Your task to perform on an android device: Open Youtube and go to "Your channel" Image 0: 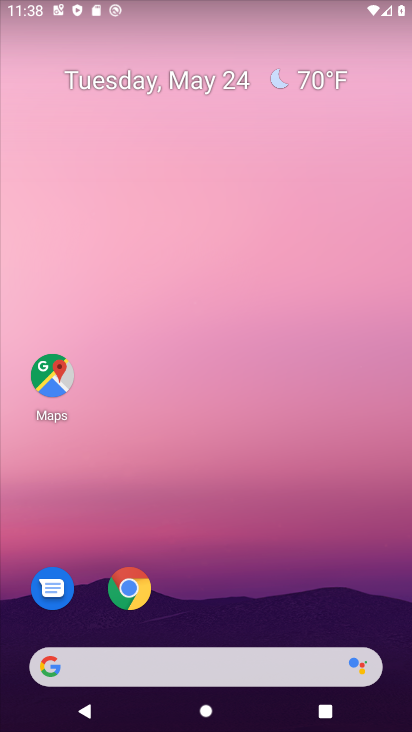
Step 0: press home button
Your task to perform on an android device: Open Youtube and go to "Your channel" Image 1: 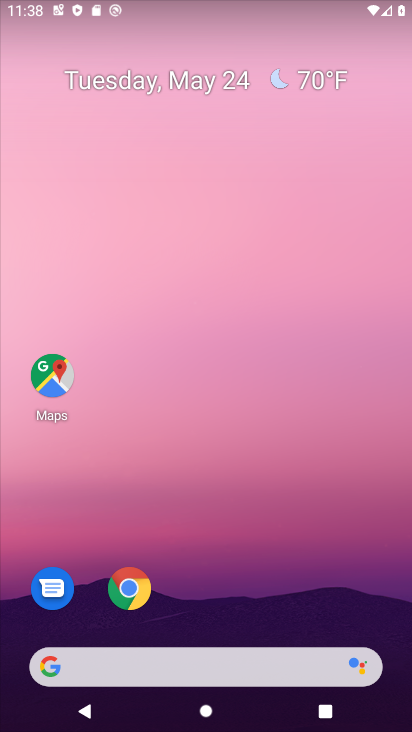
Step 1: drag from (201, 622) to (183, 0)
Your task to perform on an android device: Open Youtube and go to "Your channel" Image 2: 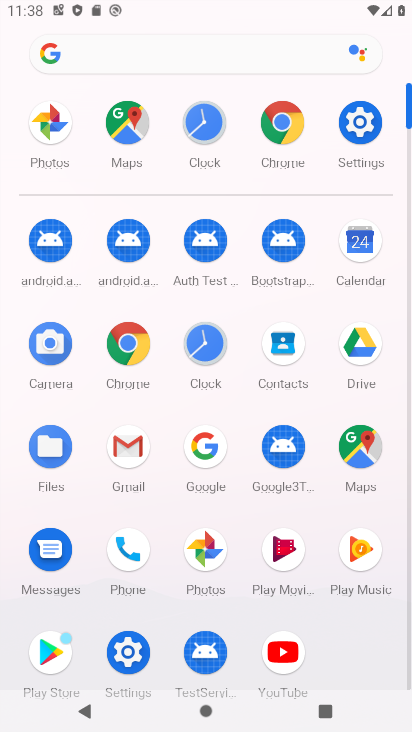
Step 2: click (282, 644)
Your task to perform on an android device: Open Youtube and go to "Your channel" Image 3: 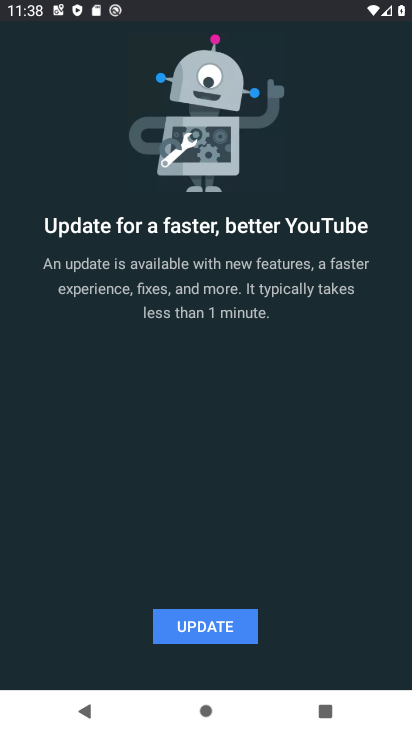
Step 3: click (194, 617)
Your task to perform on an android device: Open Youtube and go to "Your channel" Image 4: 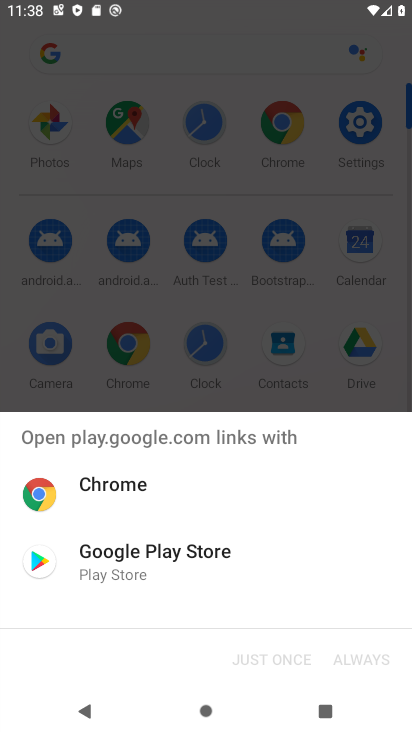
Step 4: click (116, 573)
Your task to perform on an android device: Open Youtube and go to "Your channel" Image 5: 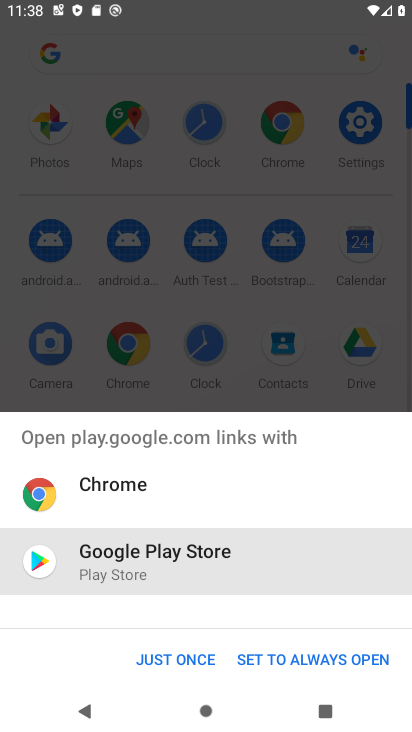
Step 5: click (176, 658)
Your task to perform on an android device: Open Youtube and go to "Your channel" Image 6: 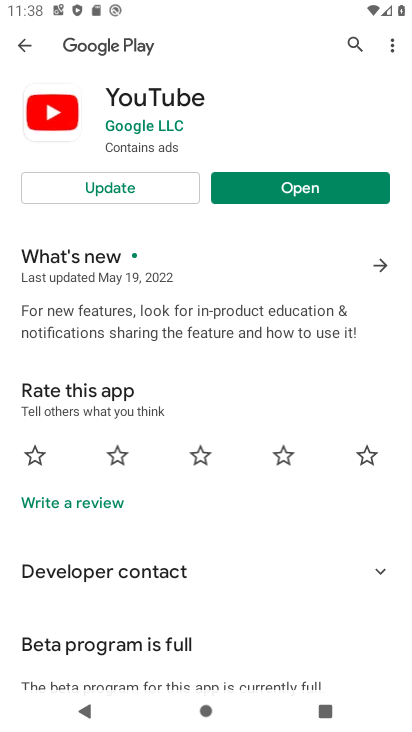
Step 6: click (114, 188)
Your task to perform on an android device: Open Youtube and go to "Your channel" Image 7: 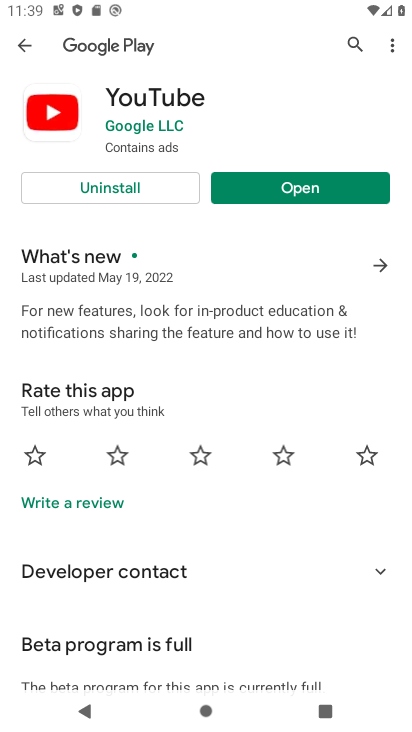
Step 7: click (306, 190)
Your task to perform on an android device: Open Youtube and go to "Your channel" Image 8: 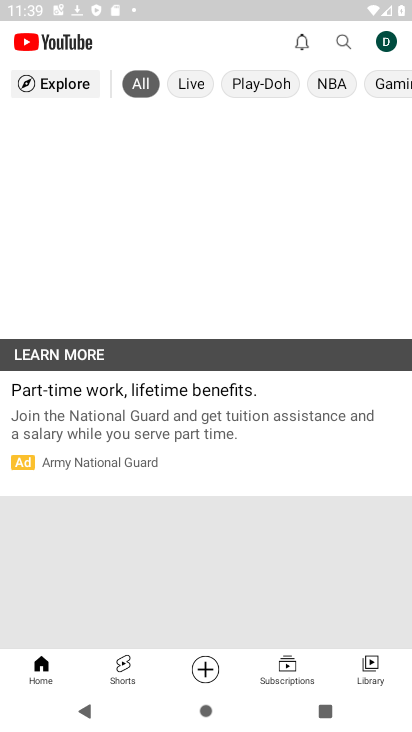
Step 8: click (386, 41)
Your task to perform on an android device: Open Youtube and go to "Your channel" Image 9: 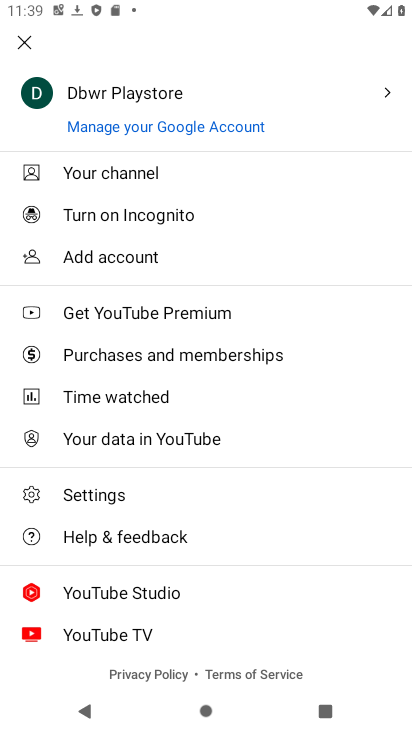
Step 9: click (161, 168)
Your task to perform on an android device: Open Youtube and go to "Your channel" Image 10: 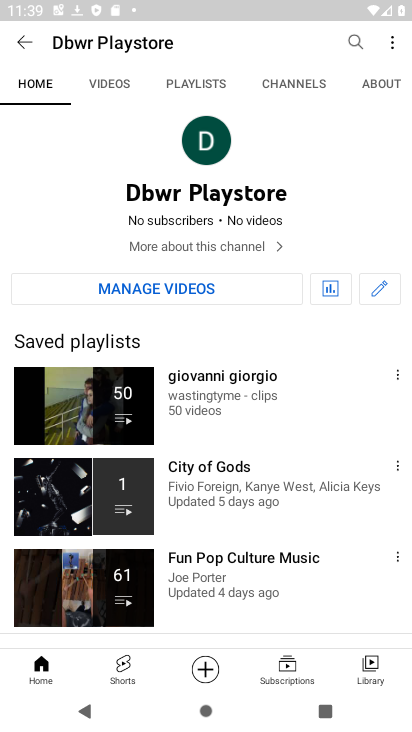
Step 10: task complete